Your task to perform on an android device: turn on showing notifications on the lock screen Image 0: 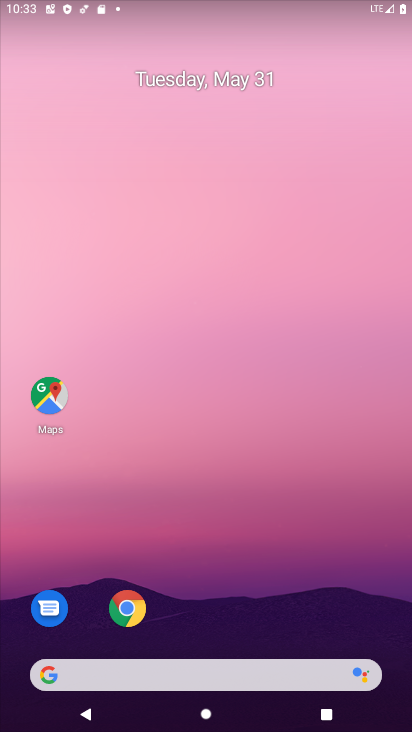
Step 0: drag from (244, 645) to (246, 39)
Your task to perform on an android device: turn on showing notifications on the lock screen Image 1: 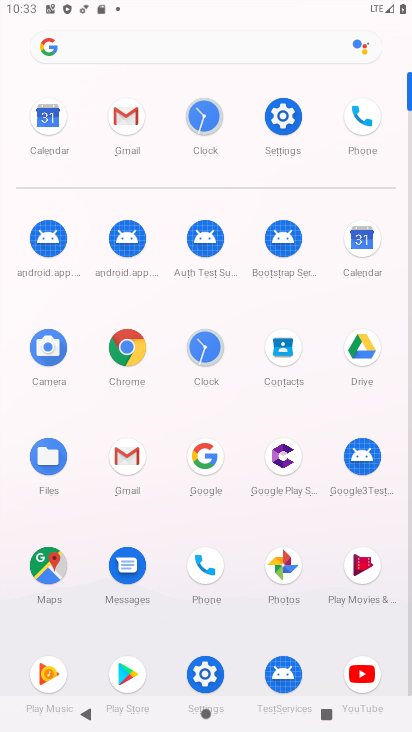
Step 1: click (213, 661)
Your task to perform on an android device: turn on showing notifications on the lock screen Image 2: 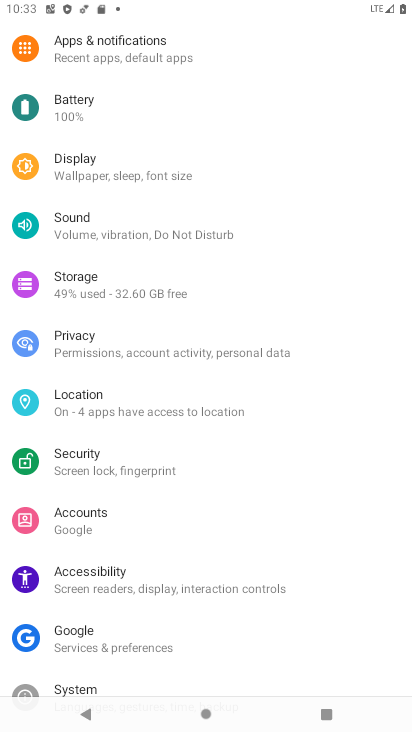
Step 2: click (139, 60)
Your task to perform on an android device: turn on showing notifications on the lock screen Image 3: 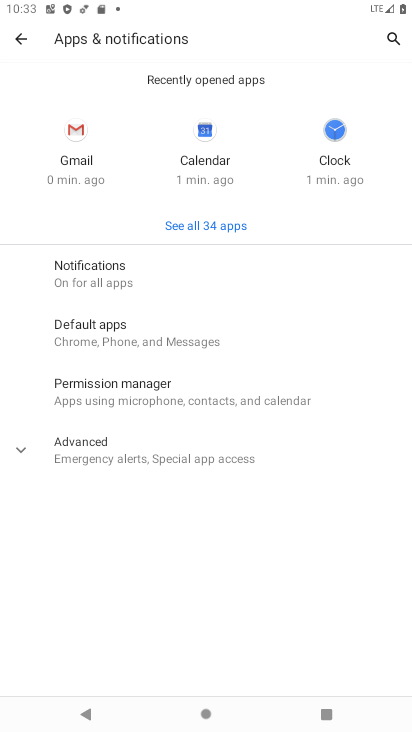
Step 3: click (141, 455)
Your task to perform on an android device: turn on showing notifications on the lock screen Image 4: 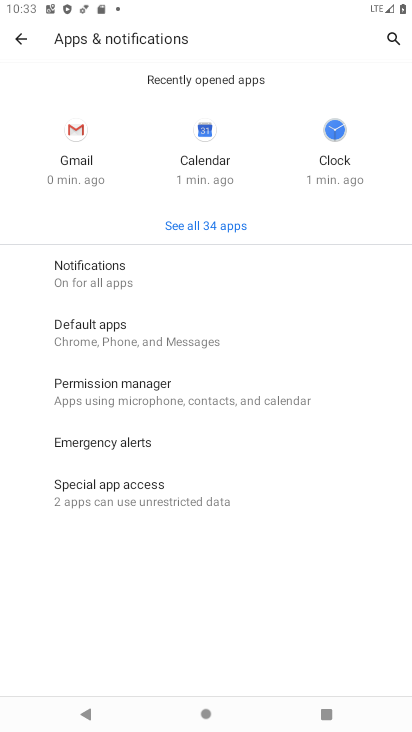
Step 4: click (115, 269)
Your task to perform on an android device: turn on showing notifications on the lock screen Image 5: 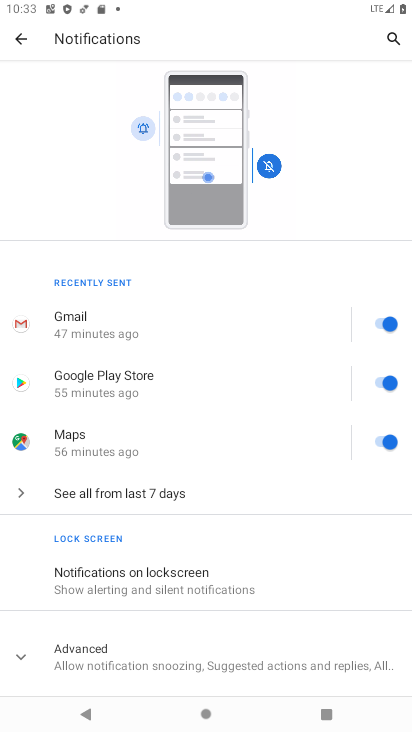
Step 5: click (174, 576)
Your task to perform on an android device: turn on showing notifications on the lock screen Image 6: 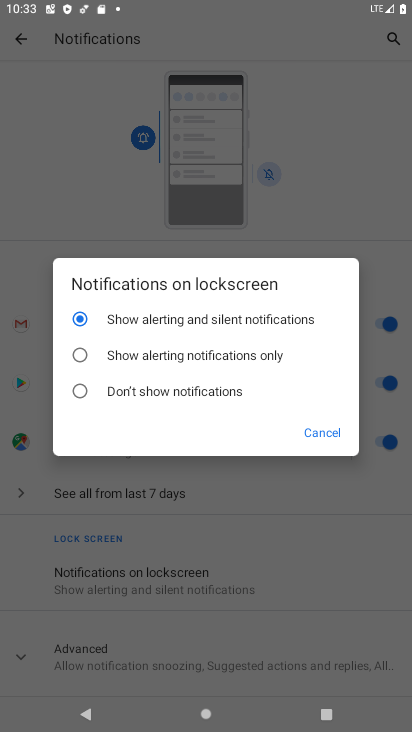
Step 6: click (159, 315)
Your task to perform on an android device: turn on showing notifications on the lock screen Image 7: 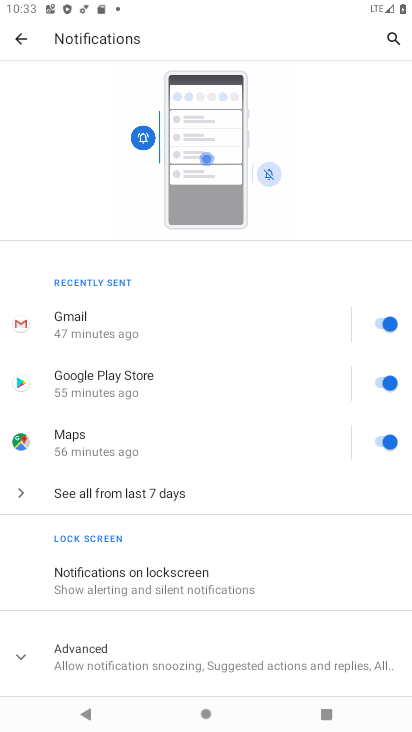
Step 7: task complete